Your task to perform on an android device: Open calendar and show me the third week of next month Image 0: 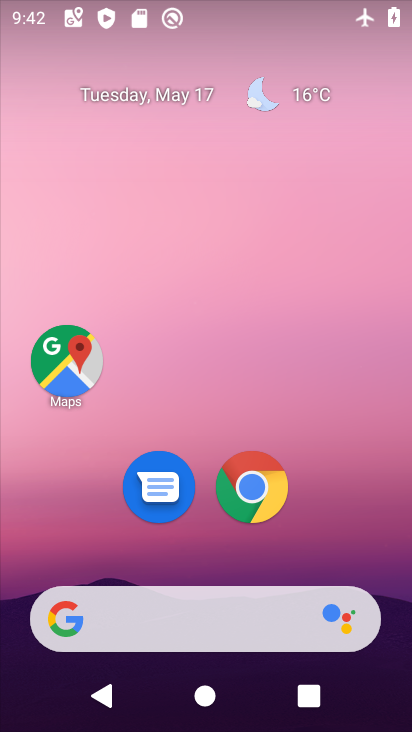
Step 0: drag from (204, 568) to (253, 72)
Your task to perform on an android device: Open calendar and show me the third week of next month Image 1: 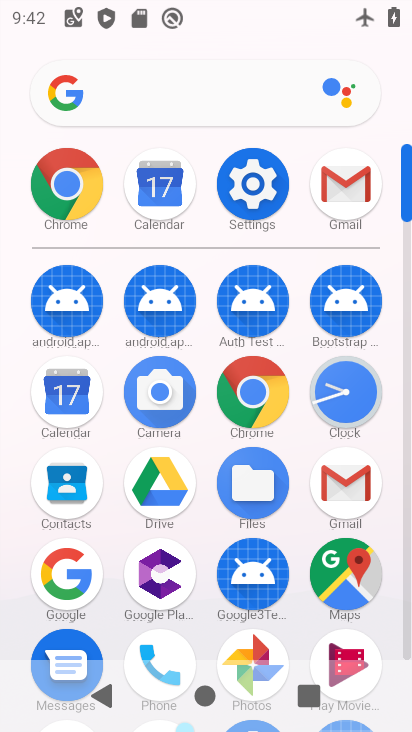
Step 1: click (61, 402)
Your task to perform on an android device: Open calendar and show me the third week of next month Image 2: 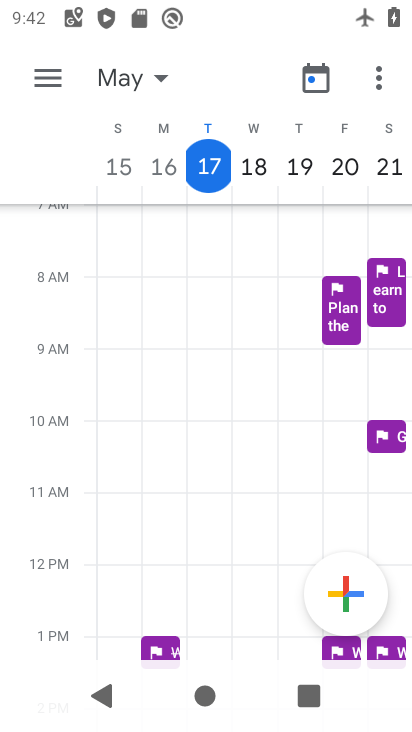
Step 2: task complete